Your task to perform on an android device: change your default location settings in chrome Image 0: 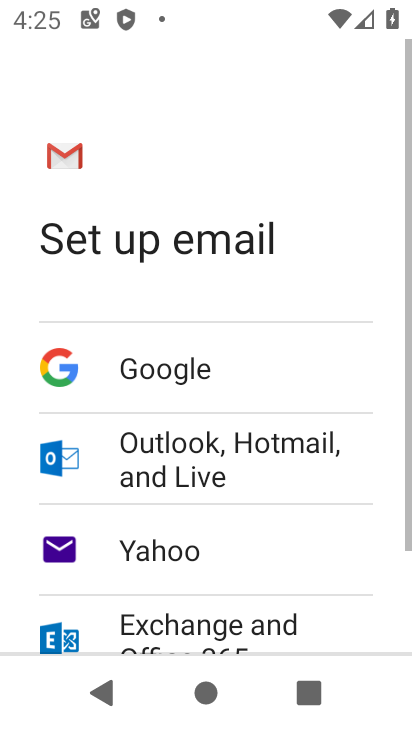
Step 0: press home button
Your task to perform on an android device: change your default location settings in chrome Image 1: 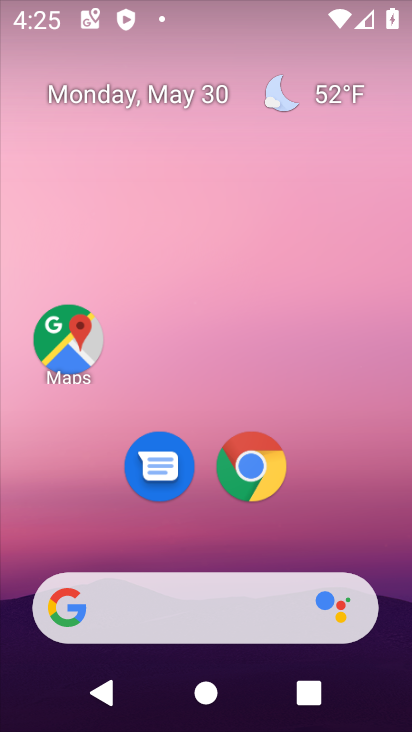
Step 1: drag from (375, 531) to (340, 131)
Your task to perform on an android device: change your default location settings in chrome Image 2: 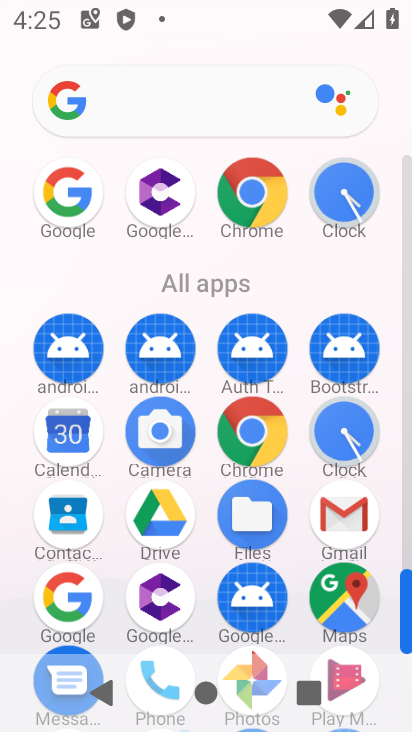
Step 2: click (251, 443)
Your task to perform on an android device: change your default location settings in chrome Image 3: 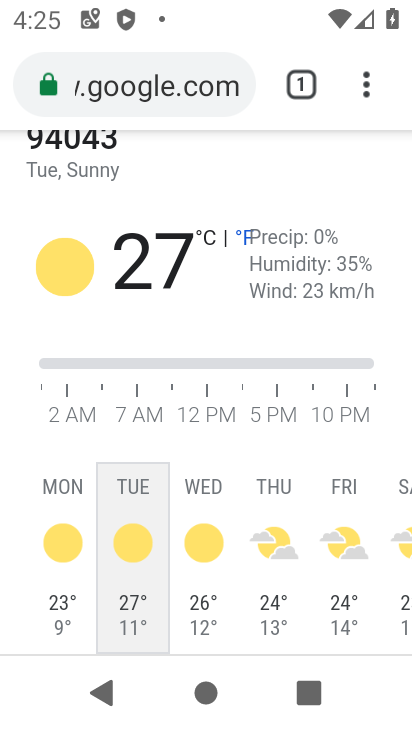
Step 3: click (376, 74)
Your task to perform on an android device: change your default location settings in chrome Image 4: 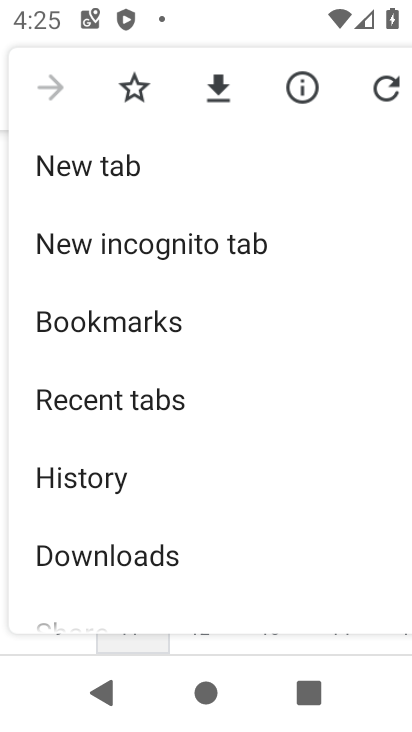
Step 4: drag from (266, 412) to (288, 122)
Your task to perform on an android device: change your default location settings in chrome Image 5: 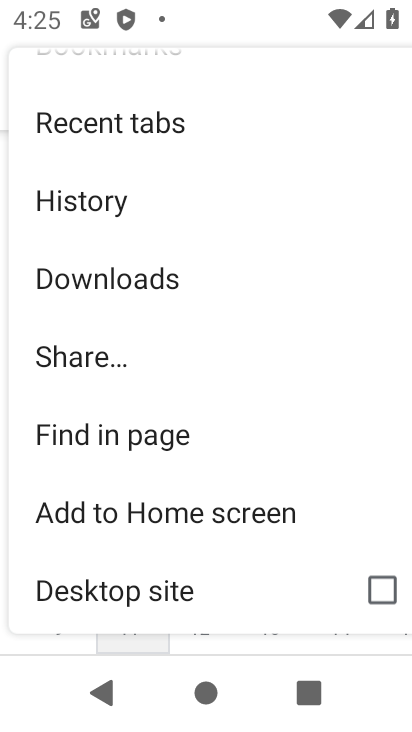
Step 5: drag from (208, 503) to (239, 187)
Your task to perform on an android device: change your default location settings in chrome Image 6: 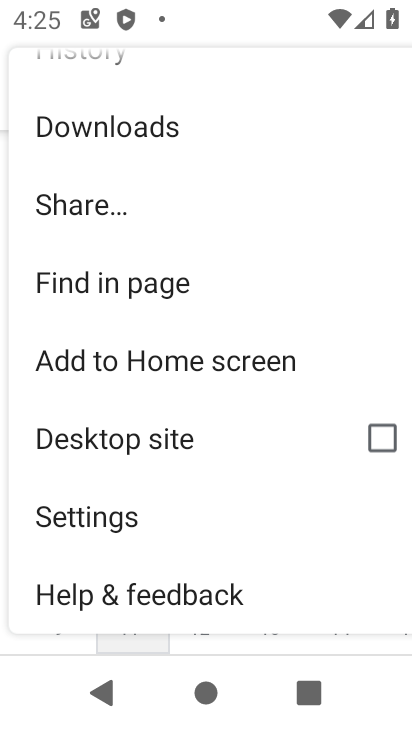
Step 6: click (140, 520)
Your task to perform on an android device: change your default location settings in chrome Image 7: 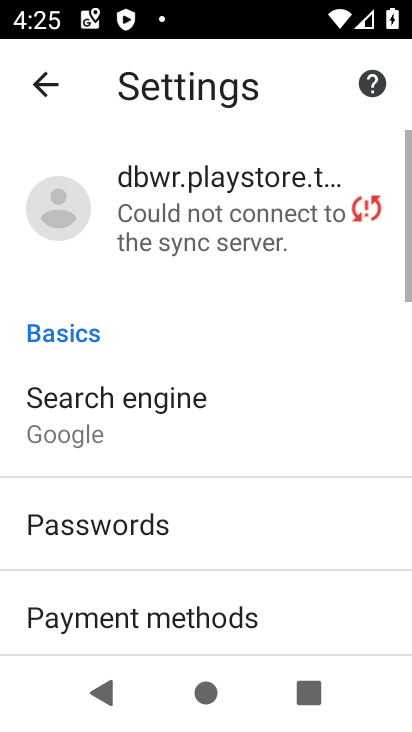
Step 7: drag from (254, 473) to (259, 415)
Your task to perform on an android device: change your default location settings in chrome Image 8: 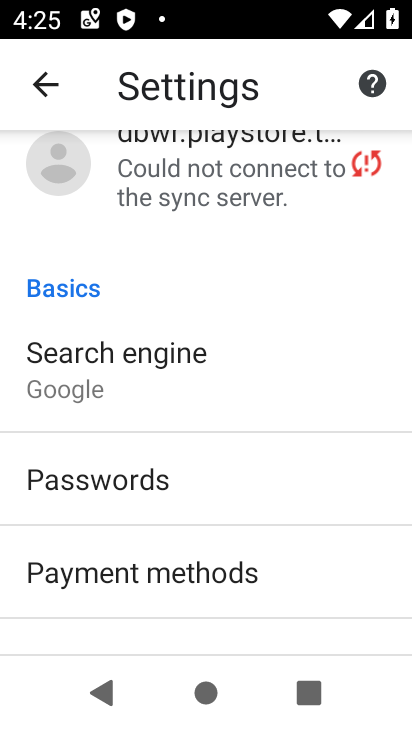
Step 8: click (137, 394)
Your task to perform on an android device: change your default location settings in chrome Image 9: 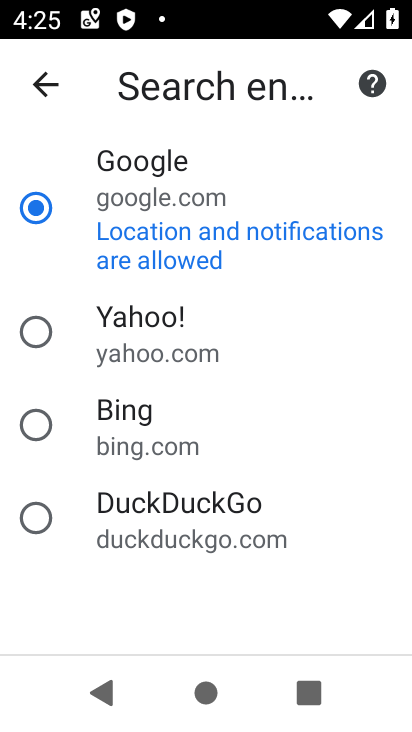
Step 9: click (22, 80)
Your task to perform on an android device: change your default location settings in chrome Image 10: 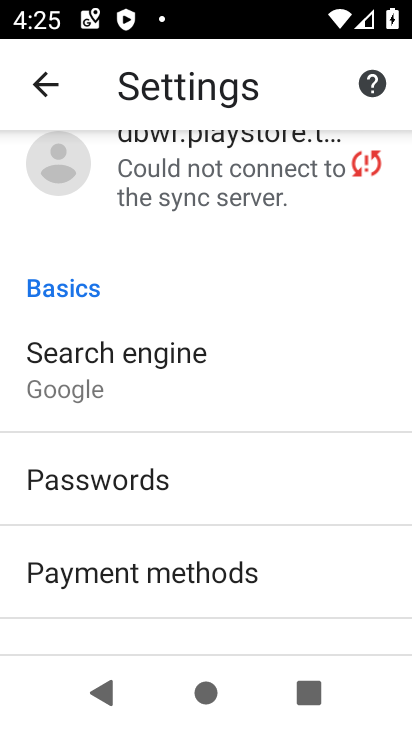
Step 10: drag from (190, 494) to (266, 114)
Your task to perform on an android device: change your default location settings in chrome Image 11: 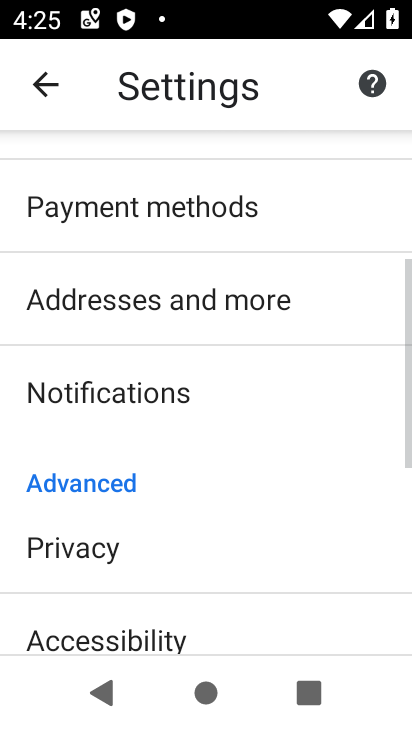
Step 11: drag from (228, 472) to (324, 120)
Your task to perform on an android device: change your default location settings in chrome Image 12: 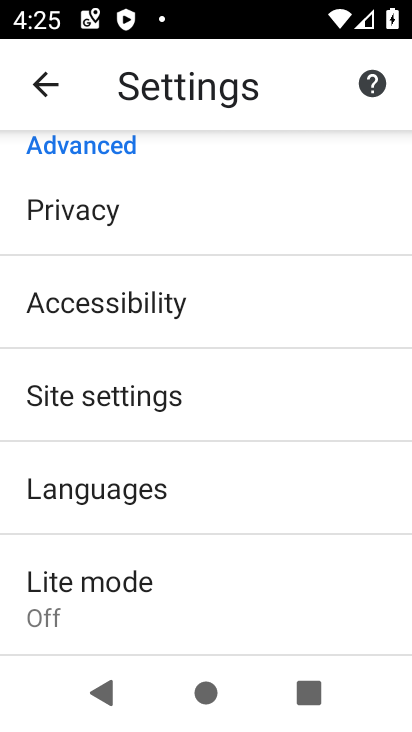
Step 12: drag from (163, 235) to (222, 302)
Your task to perform on an android device: change your default location settings in chrome Image 13: 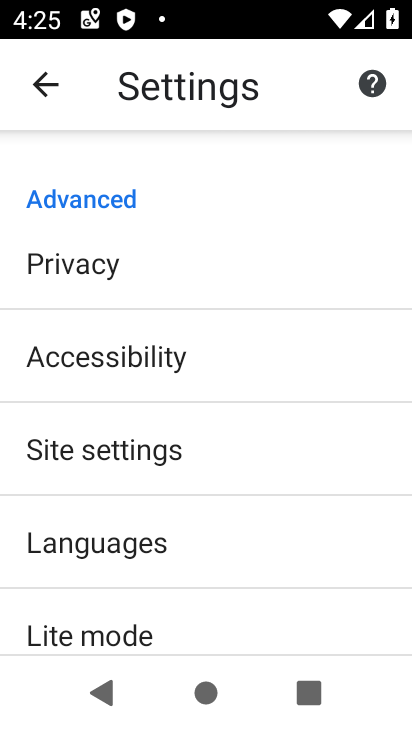
Step 13: click (134, 442)
Your task to perform on an android device: change your default location settings in chrome Image 14: 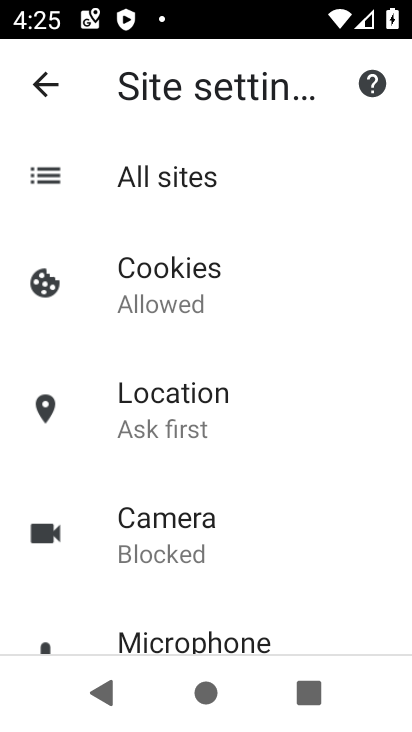
Step 14: drag from (197, 546) to (270, 238)
Your task to perform on an android device: change your default location settings in chrome Image 15: 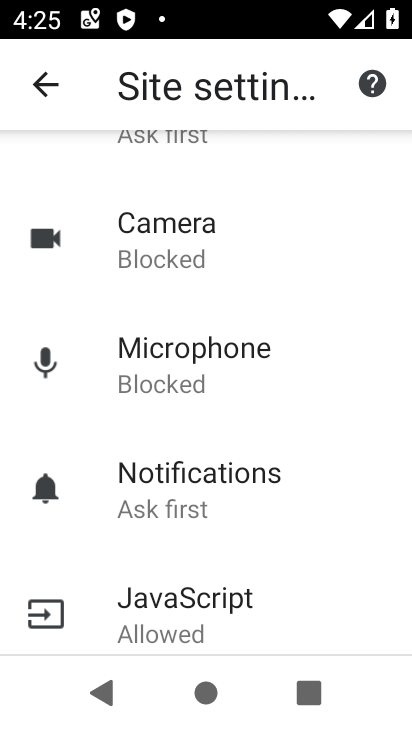
Step 15: drag from (229, 523) to (338, 144)
Your task to perform on an android device: change your default location settings in chrome Image 16: 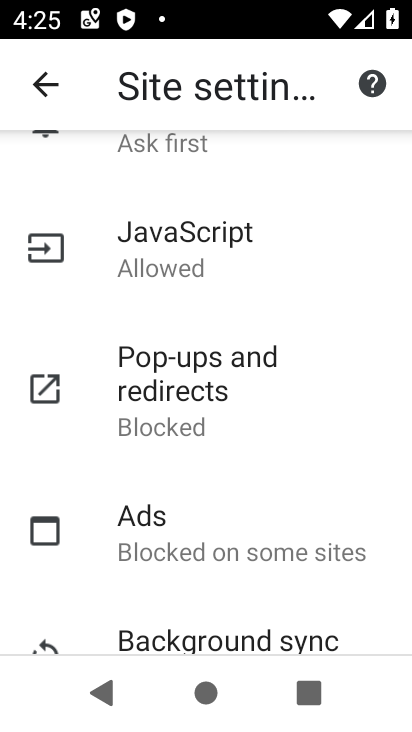
Step 16: drag from (262, 533) to (318, 160)
Your task to perform on an android device: change your default location settings in chrome Image 17: 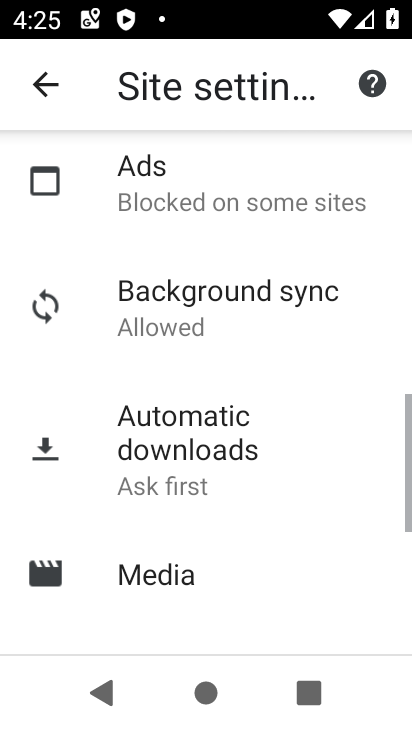
Step 17: click (319, 155)
Your task to perform on an android device: change your default location settings in chrome Image 18: 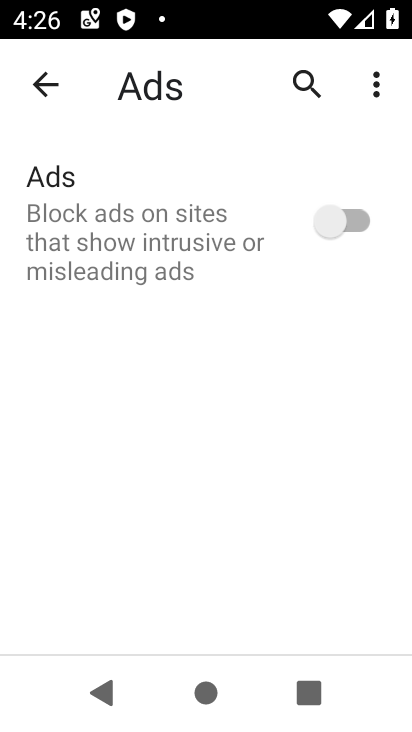
Step 18: click (50, 81)
Your task to perform on an android device: change your default location settings in chrome Image 19: 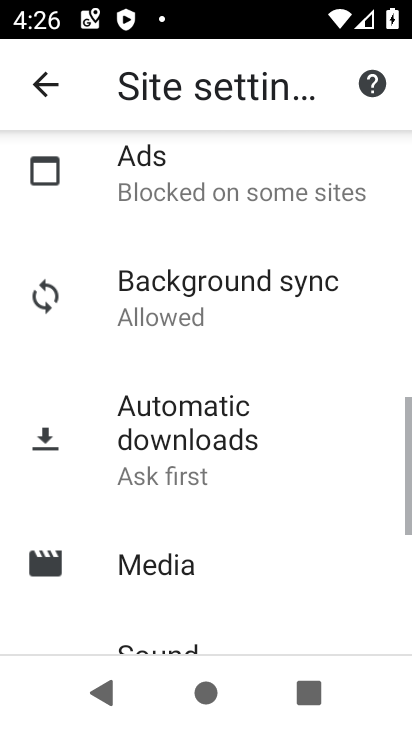
Step 19: drag from (228, 256) to (304, 728)
Your task to perform on an android device: change your default location settings in chrome Image 20: 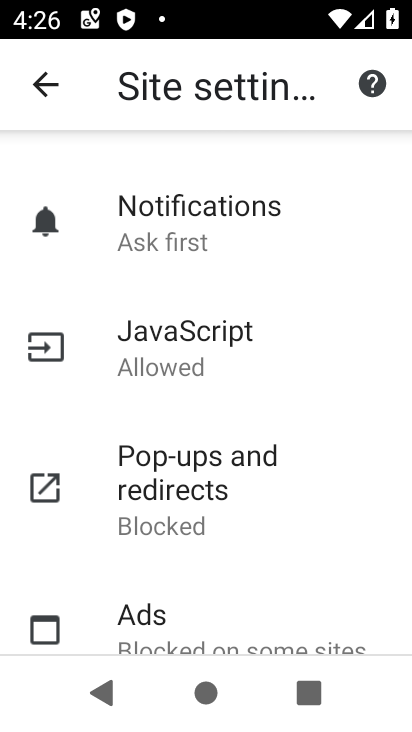
Step 20: drag from (248, 246) to (389, 678)
Your task to perform on an android device: change your default location settings in chrome Image 21: 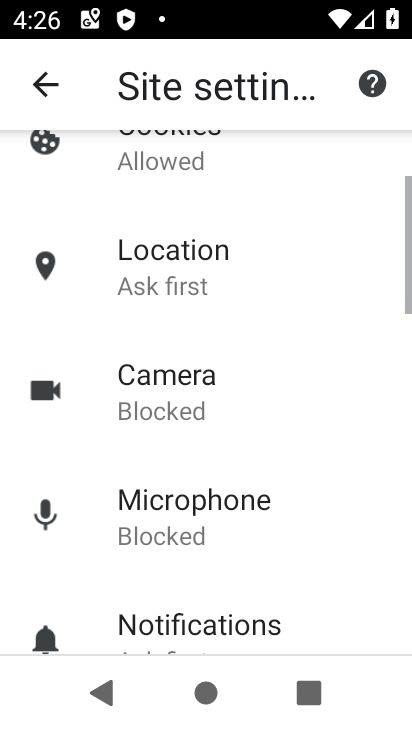
Step 21: drag from (270, 231) to (260, 404)
Your task to perform on an android device: change your default location settings in chrome Image 22: 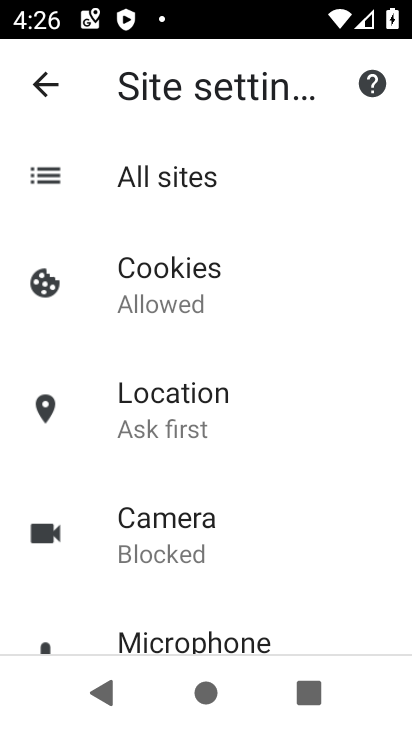
Step 22: click (190, 400)
Your task to perform on an android device: change your default location settings in chrome Image 23: 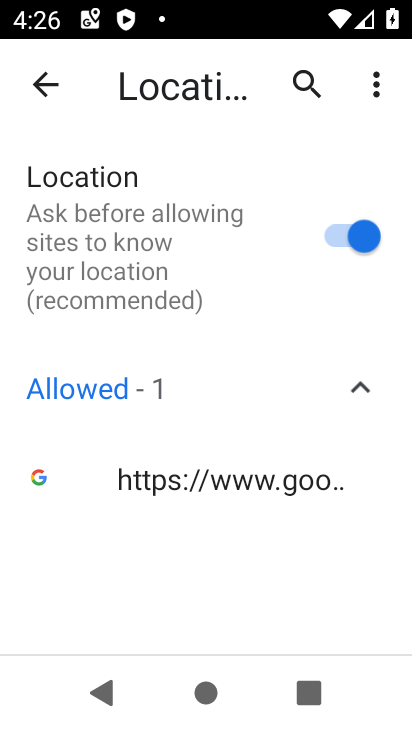
Step 23: click (344, 239)
Your task to perform on an android device: change your default location settings in chrome Image 24: 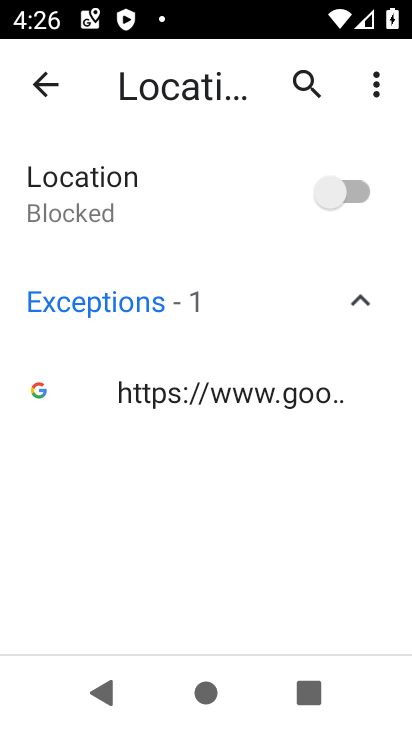
Step 24: task complete